Your task to perform on an android device: Go to battery settings Image 0: 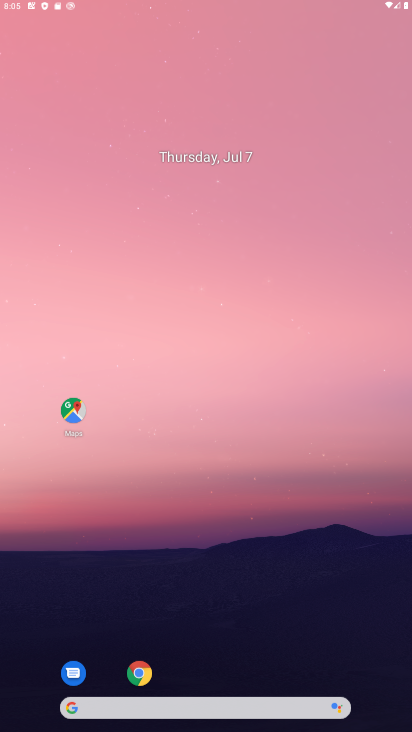
Step 0: press home button
Your task to perform on an android device: Go to battery settings Image 1: 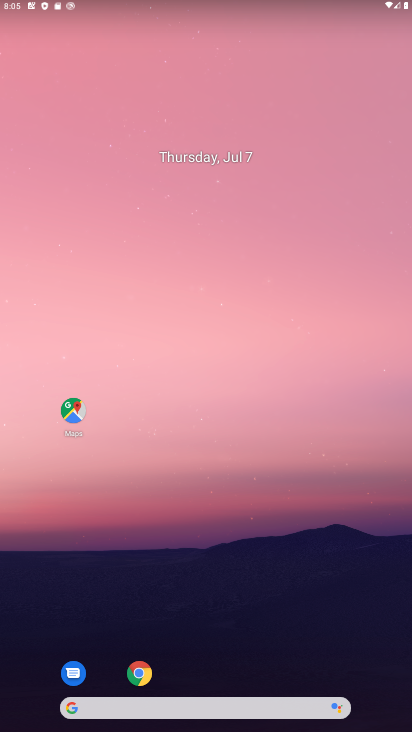
Step 1: drag from (245, 680) to (181, 121)
Your task to perform on an android device: Go to battery settings Image 2: 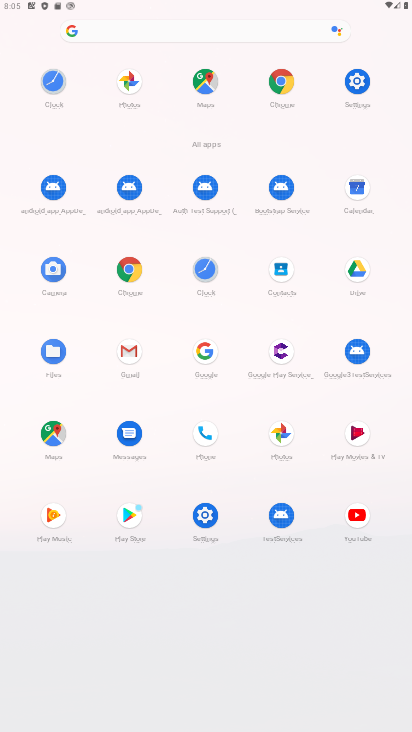
Step 2: click (346, 82)
Your task to perform on an android device: Go to battery settings Image 3: 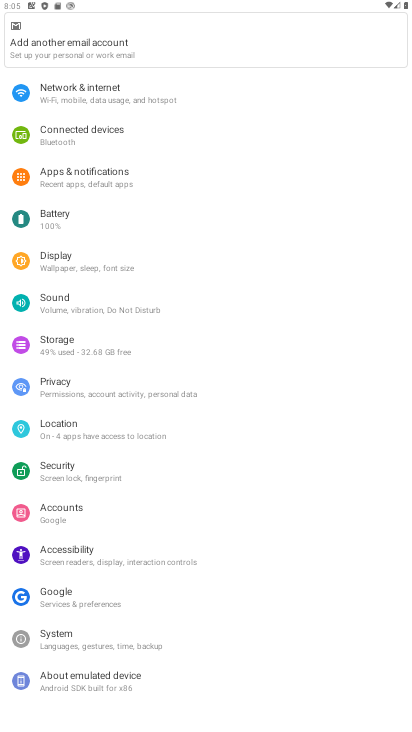
Step 3: click (46, 211)
Your task to perform on an android device: Go to battery settings Image 4: 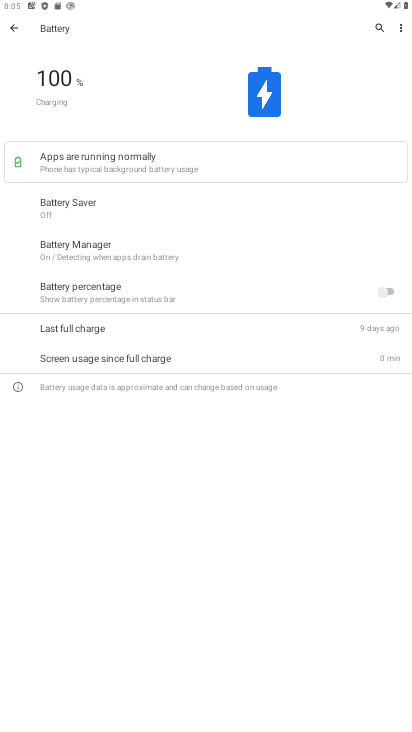
Step 4: task complete